Your task to perform on an android device: Open internet settings Image 0: 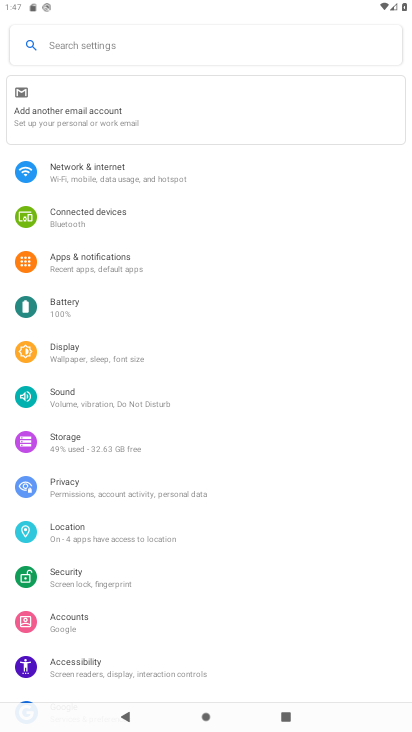
Step 0: click (190, 160)
Your task to perform on an android device: Open internet settings Image 1: 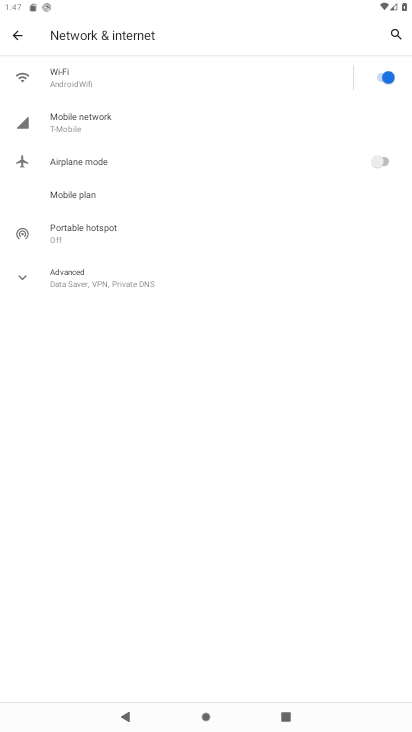
Step 1: click (110, 116)
Your task to perform on an android device: Open internet settings Image 2: 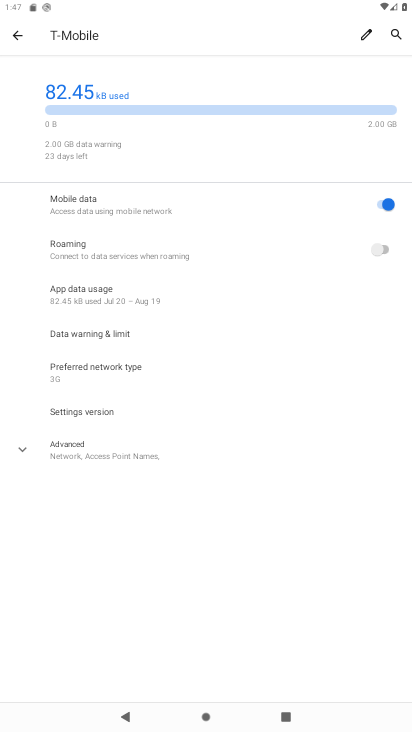
Step 2: task complete